Your task to perform on an android device: Open battery settings Image 0: 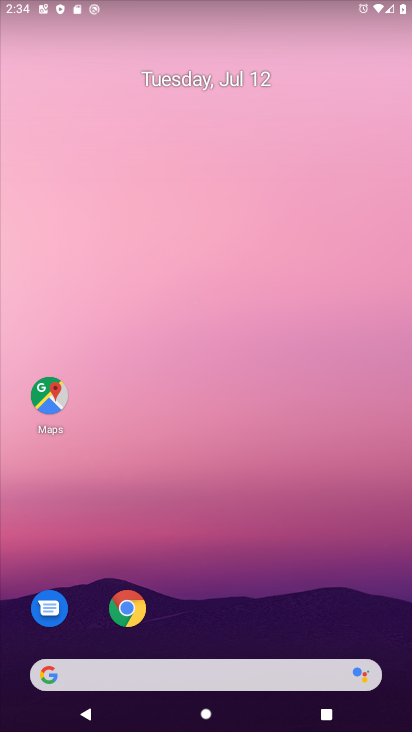
Step 0: drag from (261, 475) to (185, 113)
Your task to perform on an android device: Open battery settings Image 1: 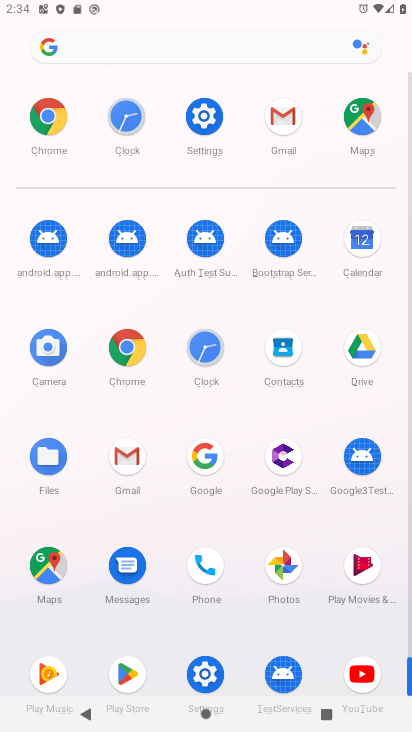
Step 1: click (206, 113)
Your task to perform on an android device: Open battery settings Image 2: 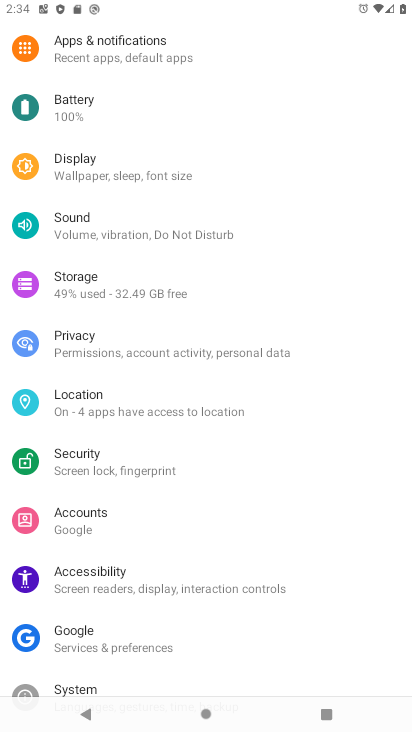
Step 2: click (83, 112)
Your task to perform on an android device: Open battery settings Image 3: 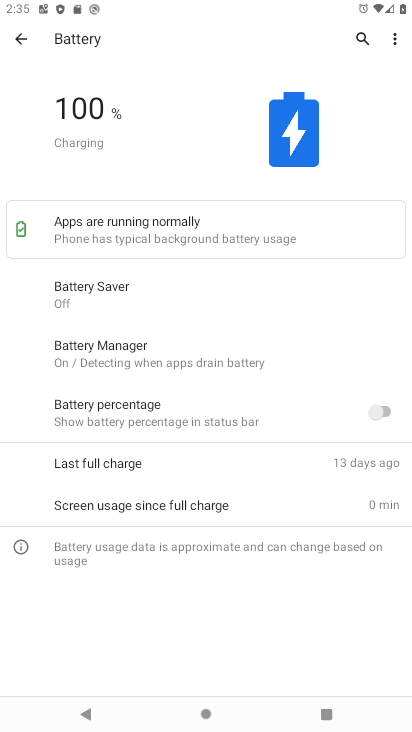
Step 3: task complete